Your task to perform on an android device: change the clock style Image 0: 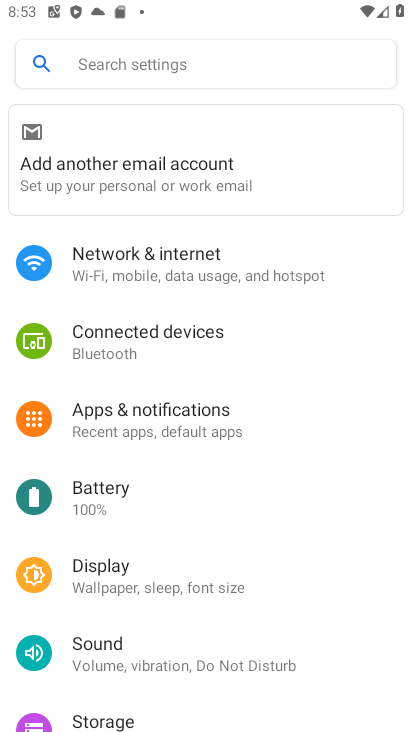
Step 0: press home button
Your task to perform on an android device: change the clock style Image 1: 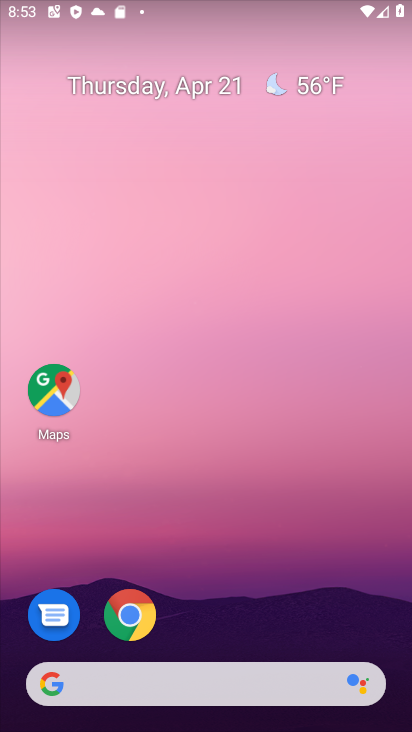
Step 1: drag from (252, 583) to (312, 47)
Your task to perform on an android device: change the clock style Image 2: 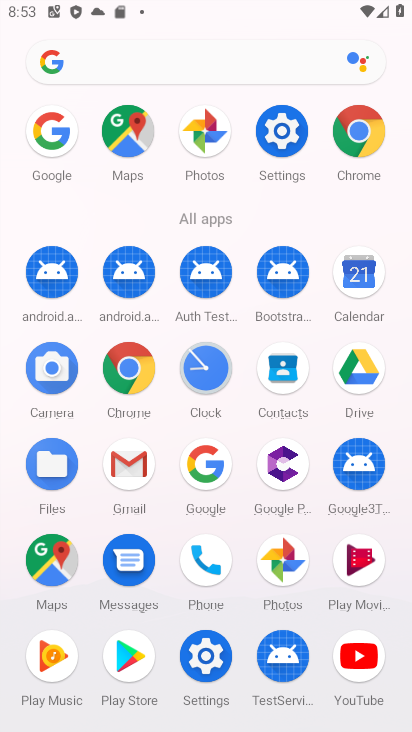
Step 2: click (206, 373)
Your task to perform on an android device: change the clock style Image 3: 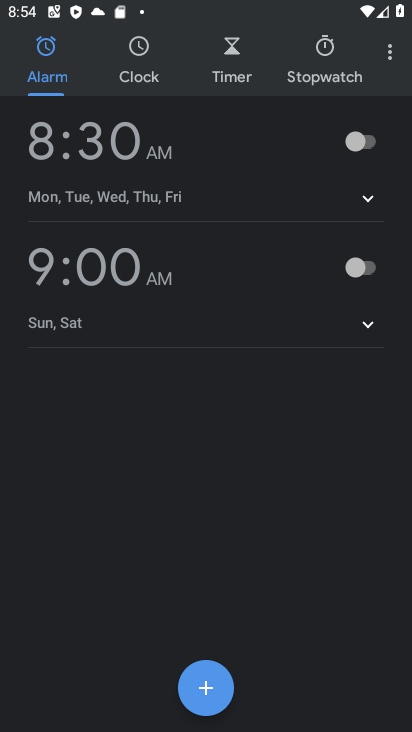
Step 3: click (383, 48)
Your task to perform on an android device: change the clock style Image 4: 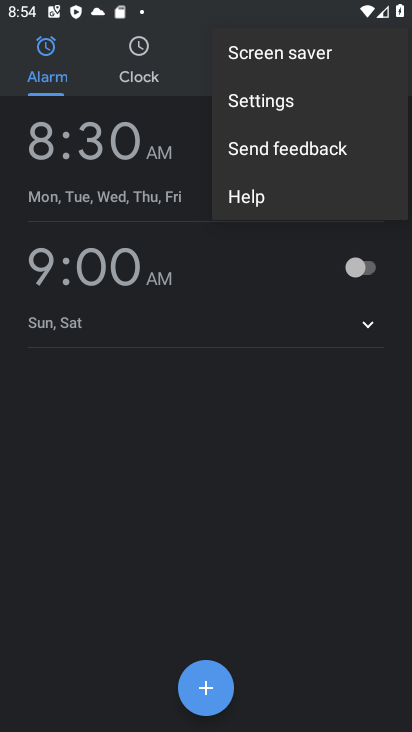
Step 4: click (295, 101)
Your task to perform on an android device: change the clock style Image 5: 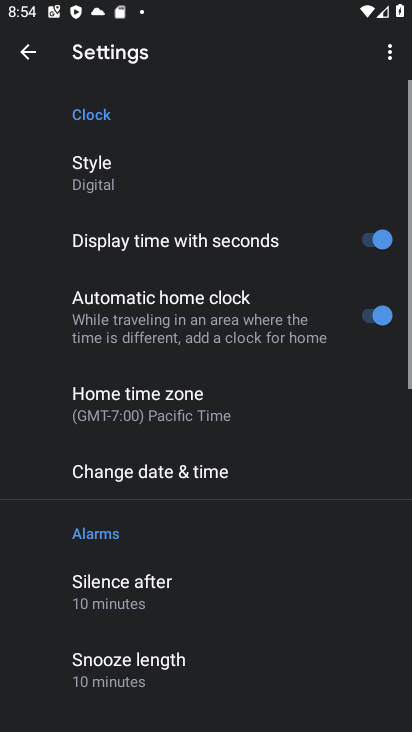
Step 5: click (144, 172)
Your task to perform on an android device: change the clock style Image 6: 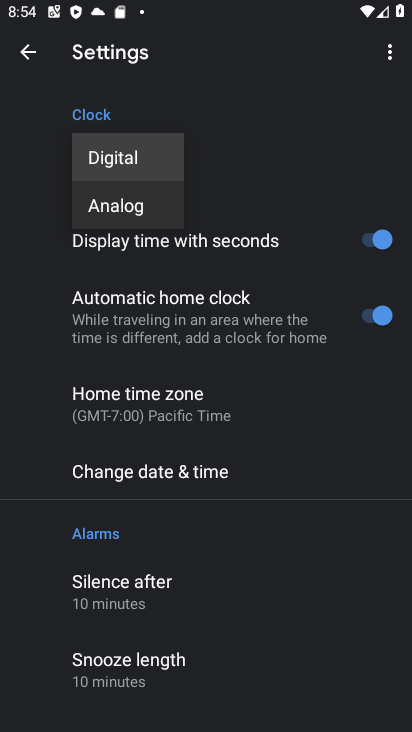
Step 6: click (142, 205)
Your task to perform on an android device: change the clock style Image 7: 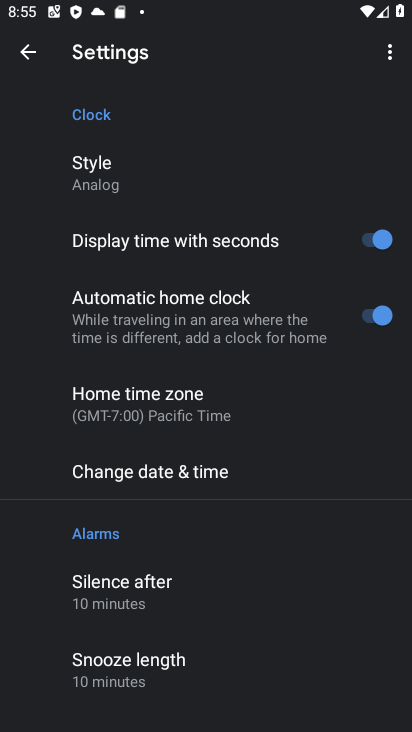
Step 7: task complete